Your task to perform on an android device: When is my next meeting? Image 0: 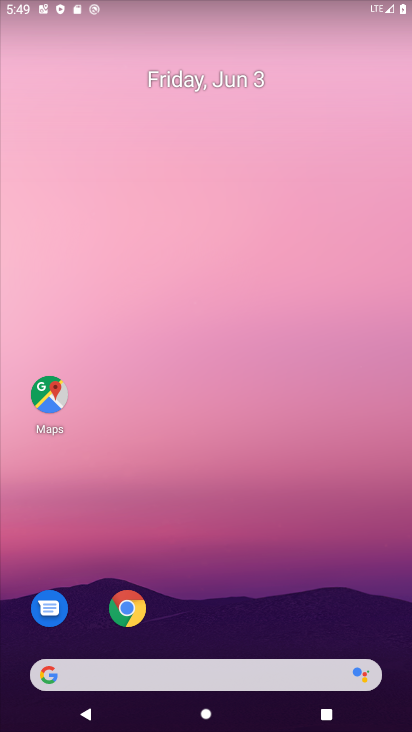
Step 0: drag from (305, 487) to (271, 145)
Your task to perform on an android device: When is my next meeting? Image 1: 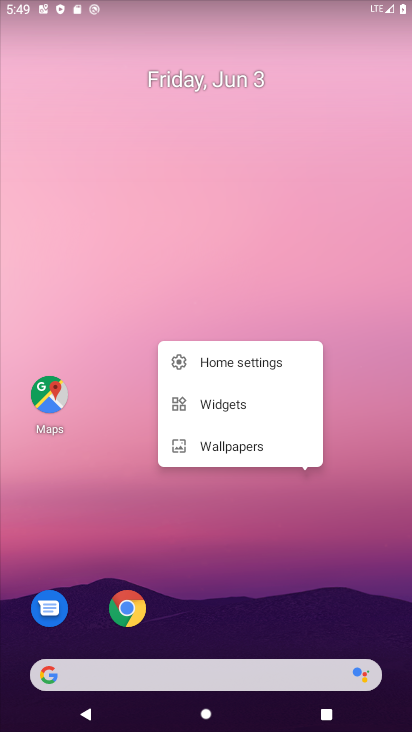
Step 1: click (271, 145)
Your task to perform on an android device: When is my next meeting? Image 2: 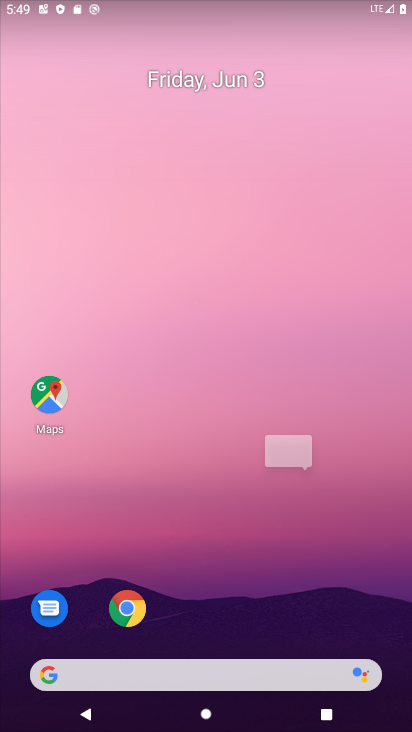
Step 2: click (271, 145)
Your task to perform on an android device: When is my next meeting? Image 3: 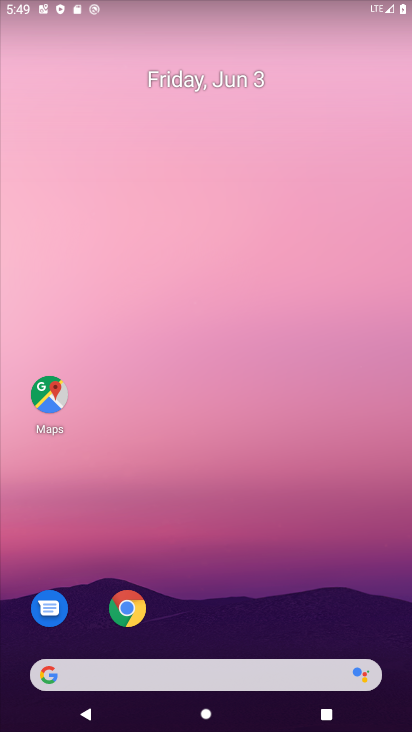
Step 3: click (271, 145)
Your task to perform on an android device: When is my next meeting? Image 4: 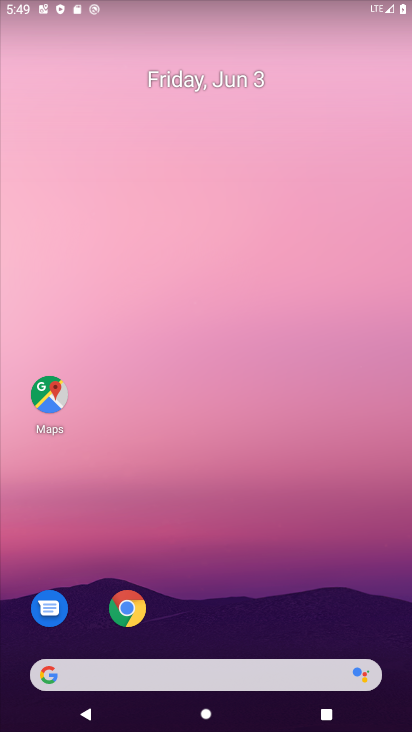
Step 4: drag from (300, 583) to (298, 228)
Your task to perform on an android device: When is my next meeting? Image 5: 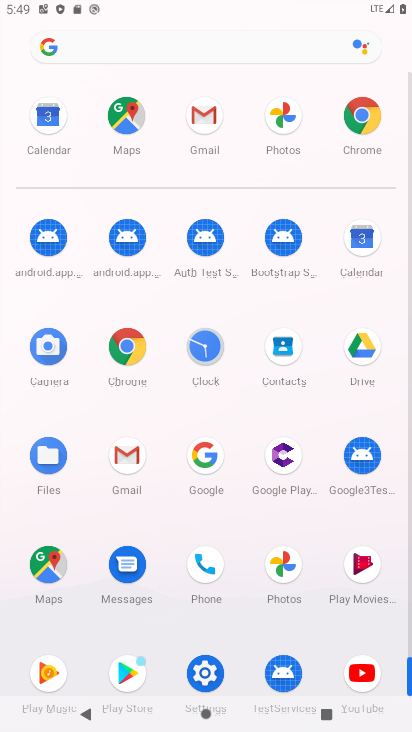
Step 5: click (358, 246)
Your task to perform on an android device: When is my next meeting? Image 6: 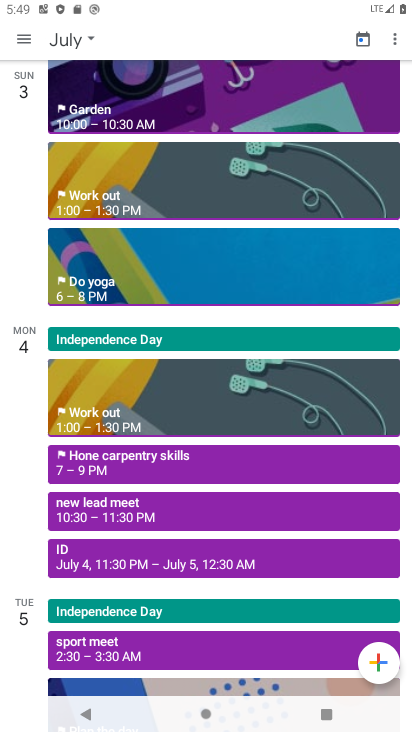
Step 6: task complete